Your task to perform on an android device: toggle sleep mode Image 0: 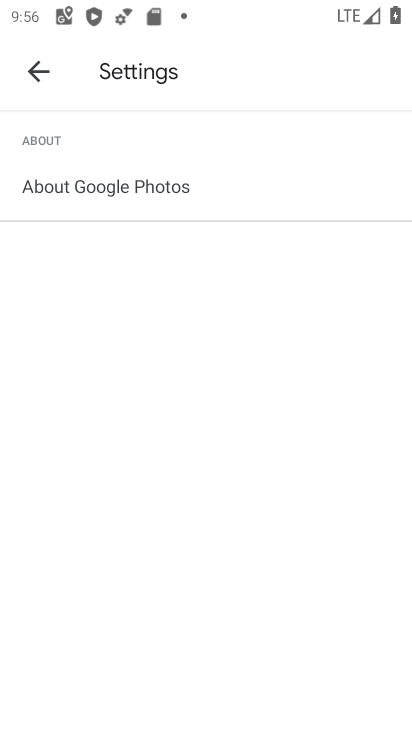
Step 0: press home button
Your task to perform on an android device: toggle sleep mode Image 1: 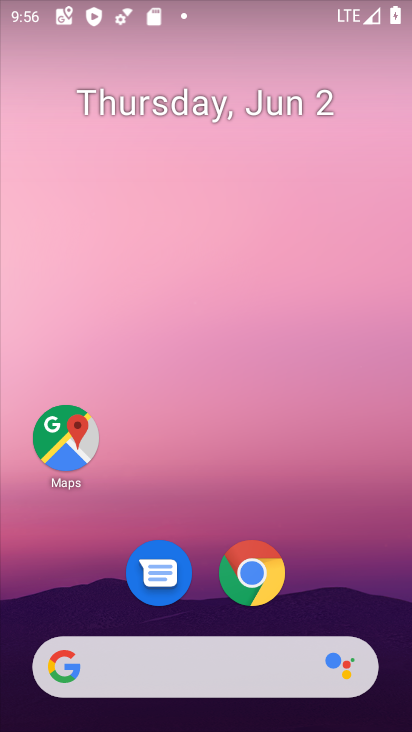
Step 1: drag from (338, 607) to (329, 218)
Your task to perform on an android device: toggle sleep mode Image 2: 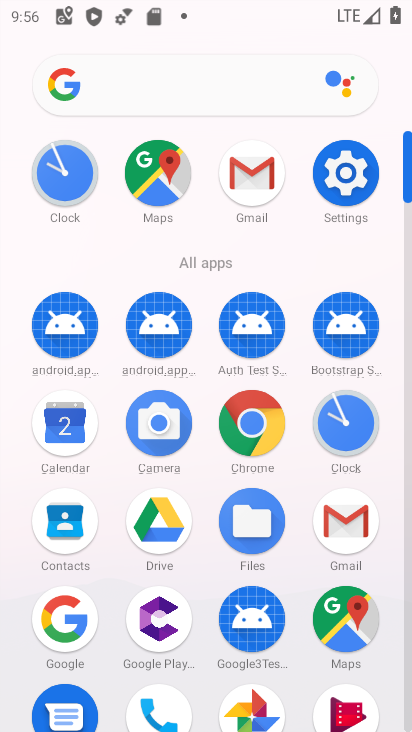
Step 2: click (334, 182)
Your task to perform on an android device: toggle sleep mode Image 3: 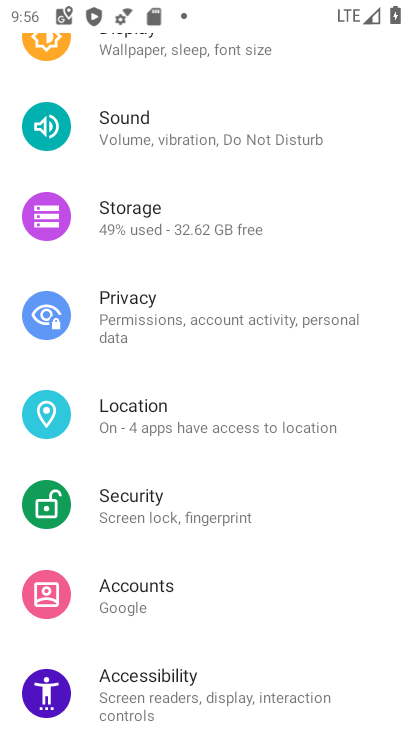
Step 3: drag from (269, 91) to (303, 353)
Your task to perform on an android device: toggle sleep mode Image 4: 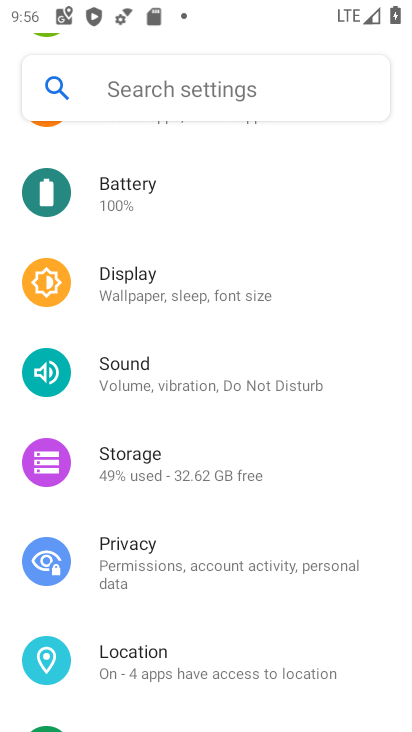
Step 4: click (224, 282)
Your task to perform on an android device: toggle sleep mode Image 5: 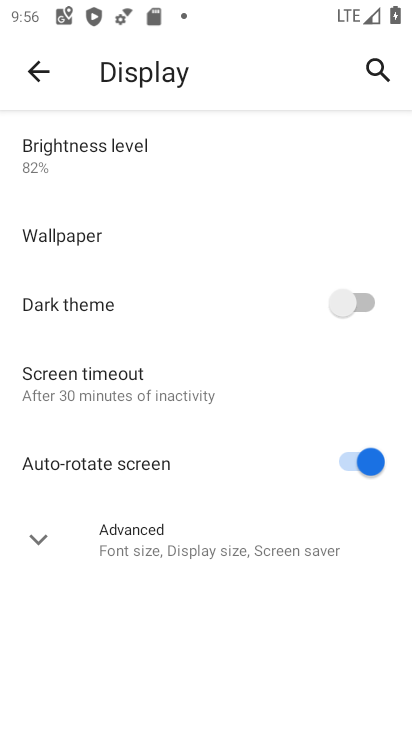
Step 5: click (204, 555)
Your task to perform on an android device: toggle sleep mode Image 6: 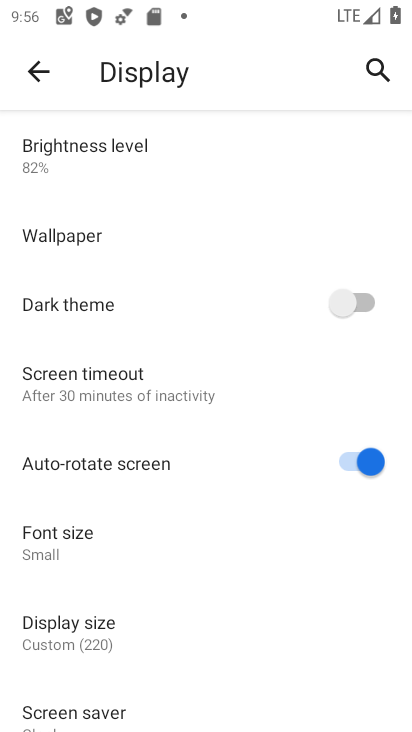
Step 6: task complete